Your task to perform on an android device: Open Google Chrome and open the bookmarks view Image 0: 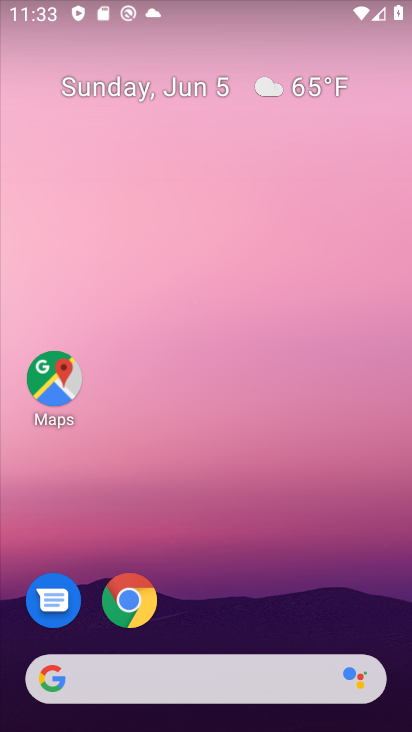
Step 0: drag from (400, 654) to (373, 21)
Your task to perform on an android device: Open Google Chrome and open the bookmarks view Image 1: 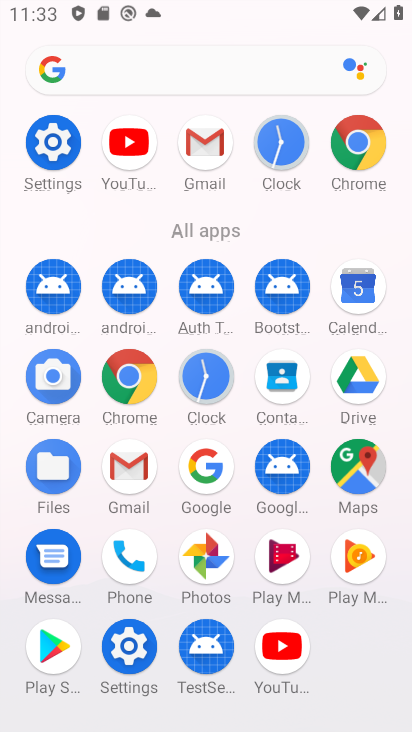
Step 1: click (360, 134)
Your task to perform on an android device: Open Google Chrome and open the bookmarks view Image 2: 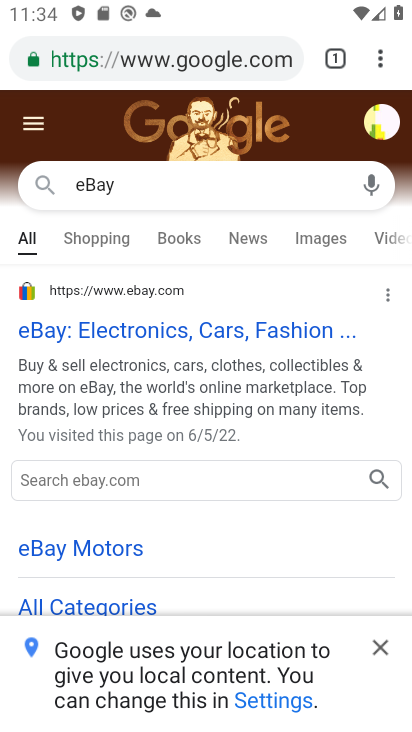
Step 2: click (379, 47)
Your task to perform on an android device: Open Google Chrome and open the bookmarks view Image 3: 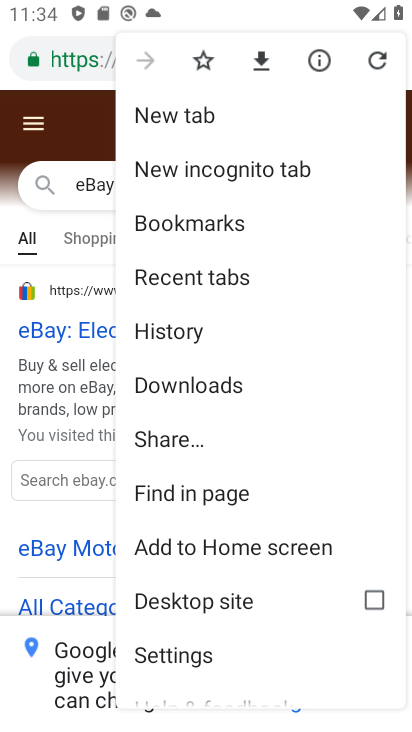
Step 3: click (172, 221)
Your task to perform on an android device: Open Google Chrome and open the bookmarks view Image 4: 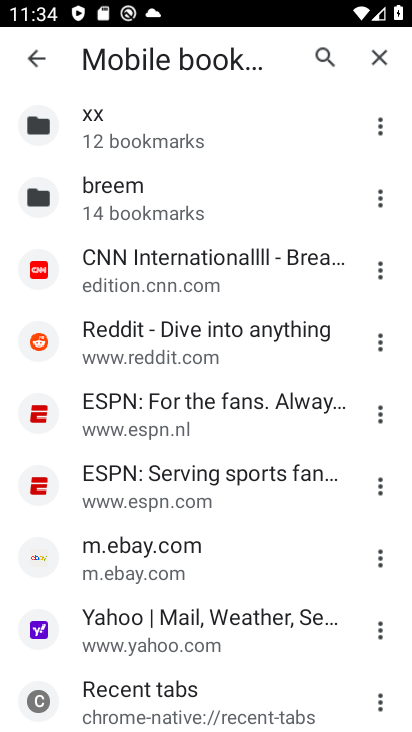
Step 4: task complete